Your task to perform on an android device: Open internet settings Image 0: 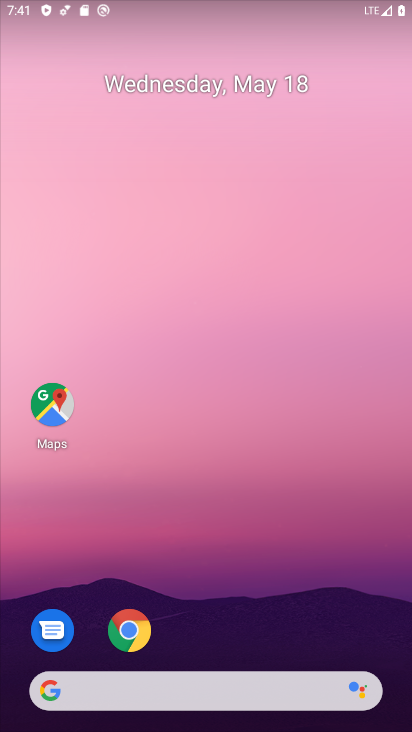
Step 0: press home button
Your task to perform on an android device: Open internet settings Image 1: 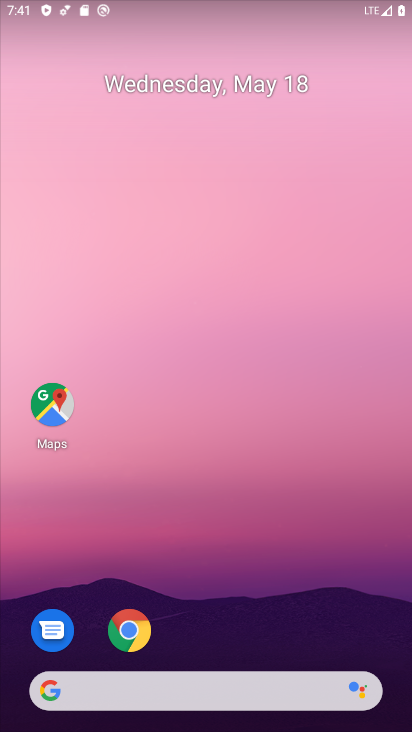
Step 1: drag from (142, 685) to (315, 30)
Your task to perform on an android device: Open internet settings Image 2: 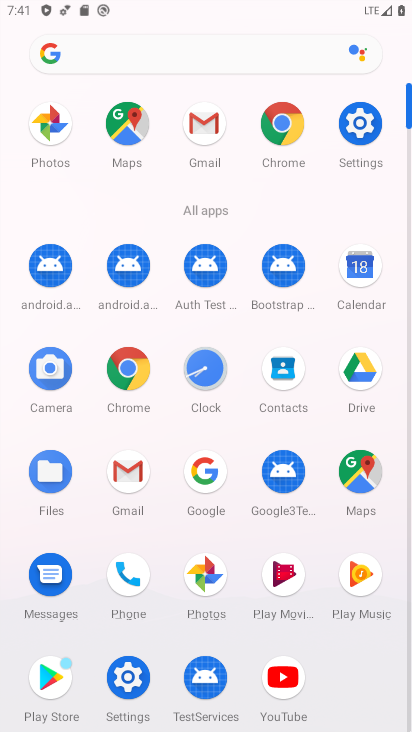
Step 2: click (363, 124)
Your task to perform on an android device: Open internet settings Image 3: 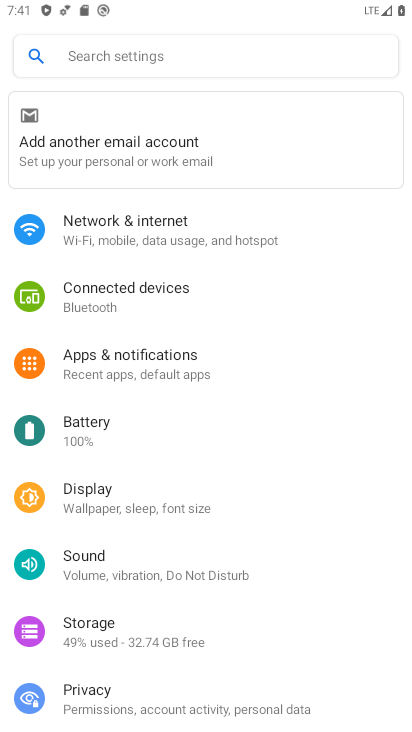
Step 3: click (176, 224)
Your task to perform on an android device: Open internet settings Image 4: 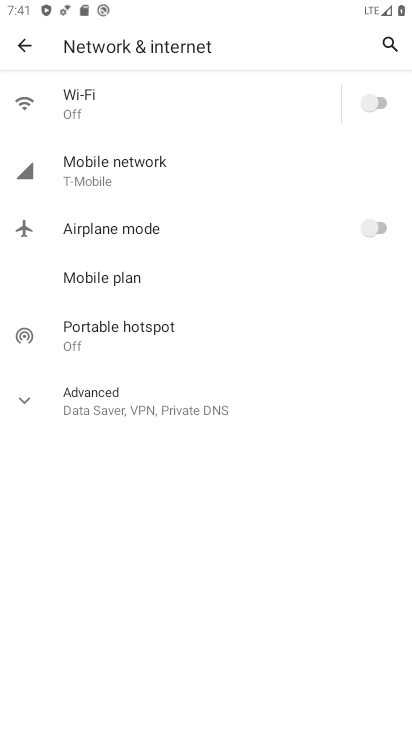
Step 4: task complete